Your task to perform on an android device: Open settings on Google Maps Image 0: 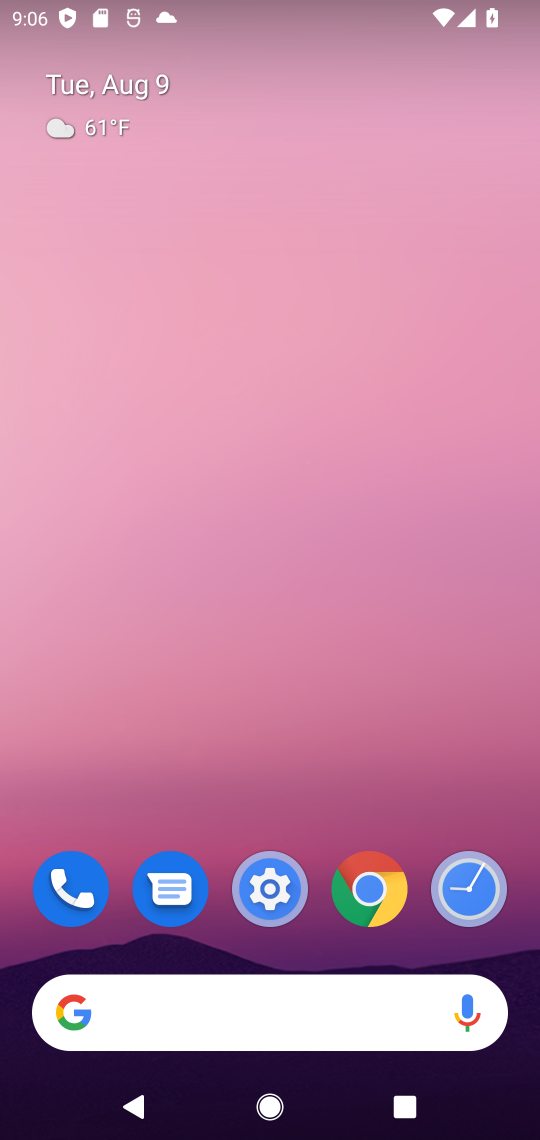
Step 0: drag from (277, 895) to (378, 96)
Your task to perform on an android device: Open settings on Google Maps Image 1: 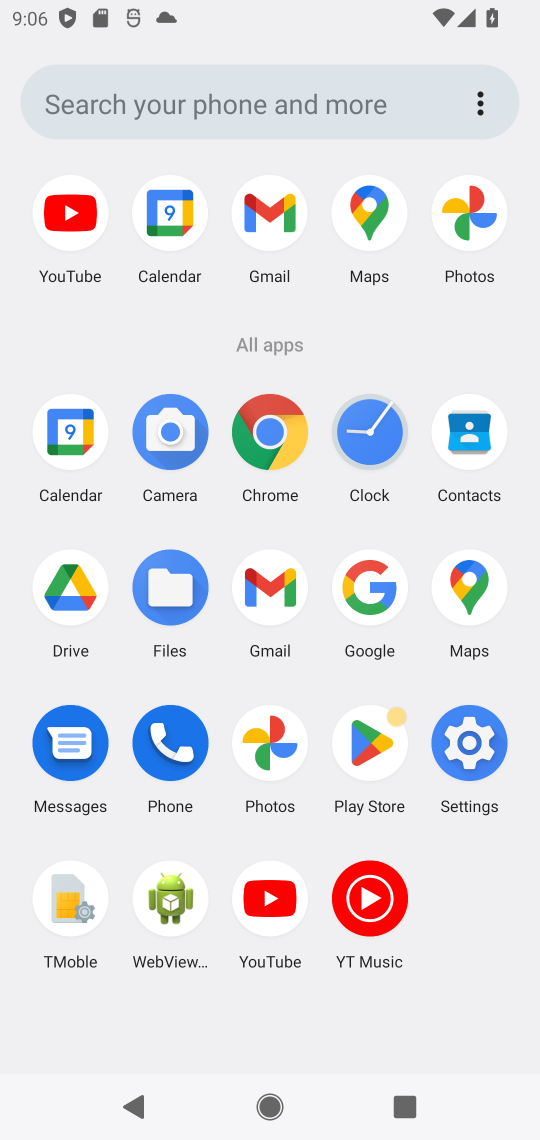
Step 1: click (460, 588)
Your task to perform on an android device: Open settings on Google Maps Image 2: 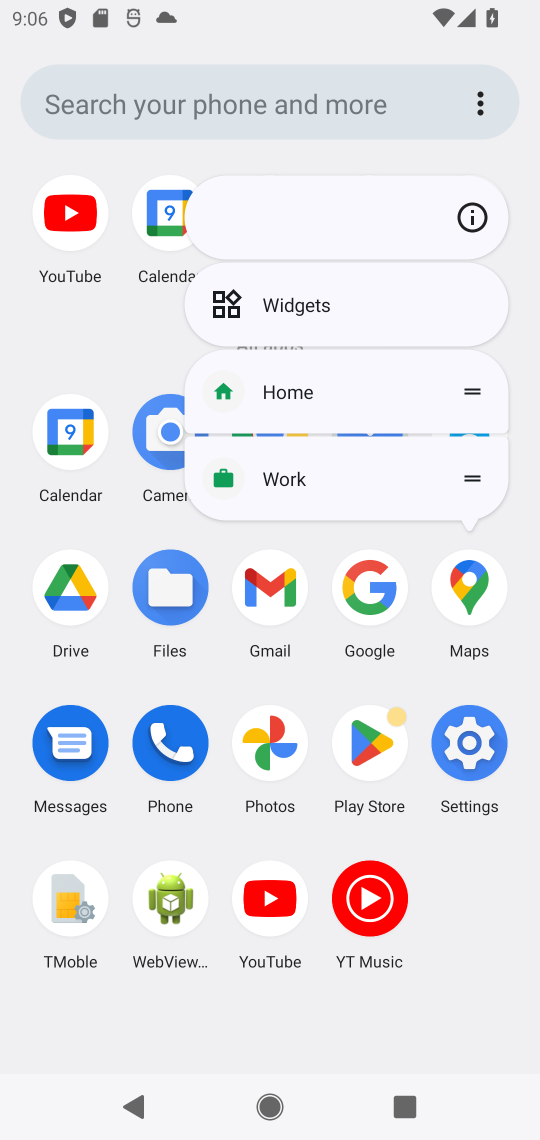
Step 2: click (460, 578)
Your task to perform on an android device: Open settings on Google Maps Image 3: 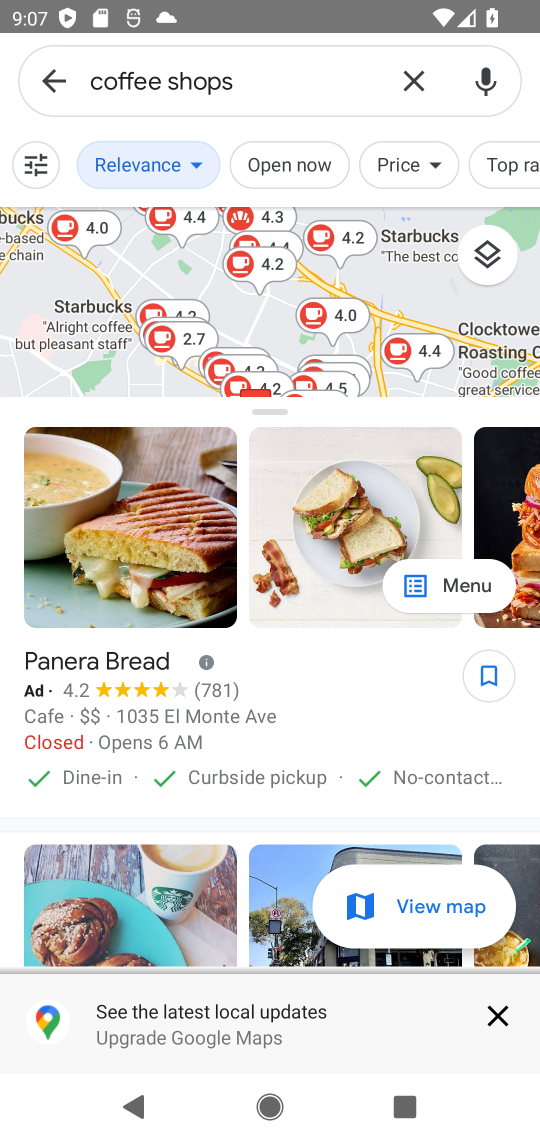
Step 3: click (23, 92)
Your task to perform on an android device: Open settings on Google Maps Image 4: 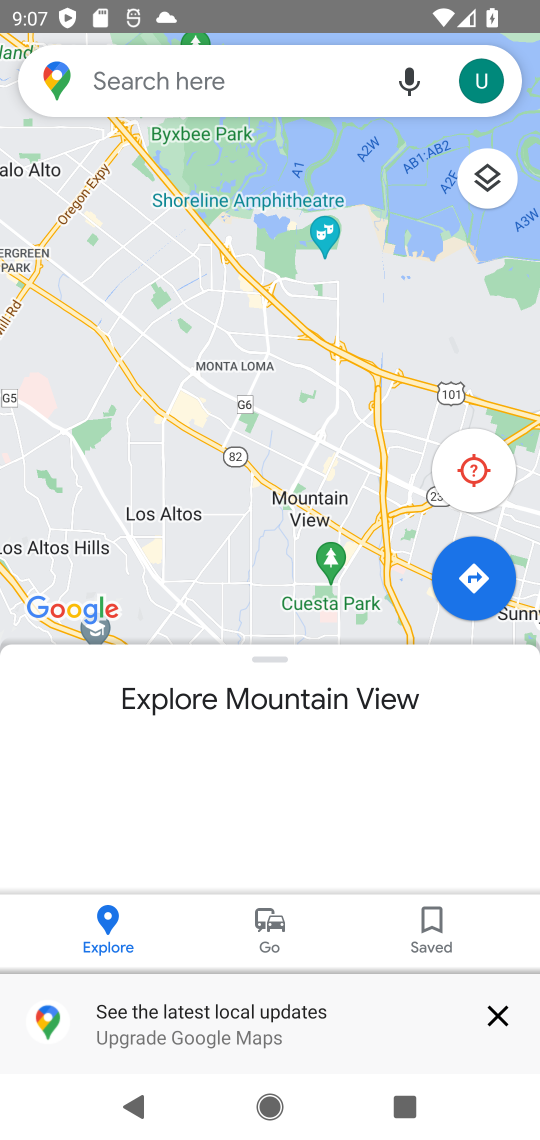
Step 4: click (460, 93)
Your task to perform on an android device: Open settings on Google Maps Image 5: 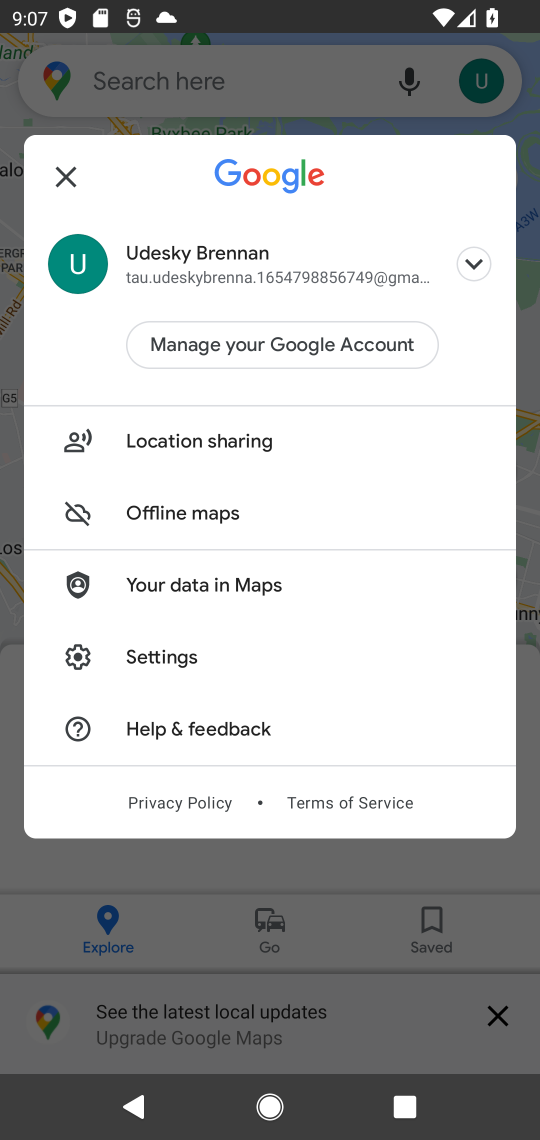
Step 5: click (169, 654)
Your task to perform on an android device: Open settings on Google Maps Image 6: 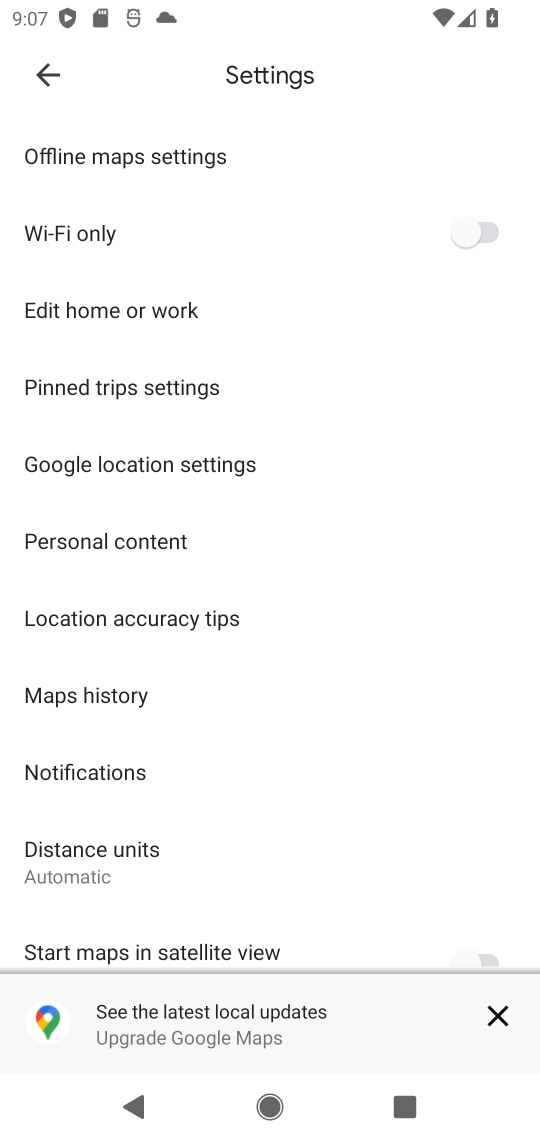
Step 6: task complete